Your task to perform on an android device: Go to settings Image 0: 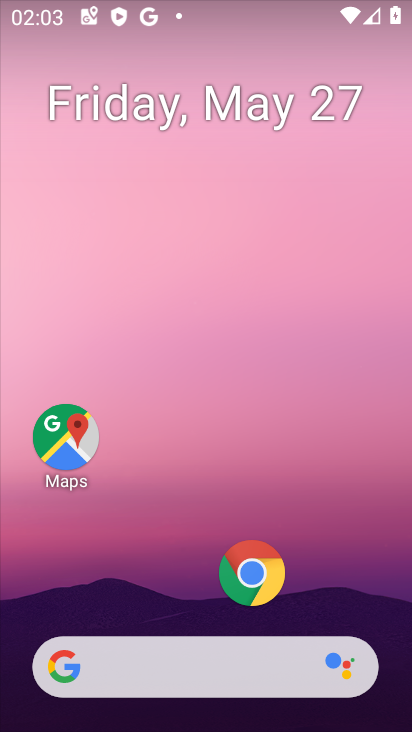
Step 0: drag from (269, 612) to (401, 320)
Your task to perform on an android device: Go to settings Image 1: 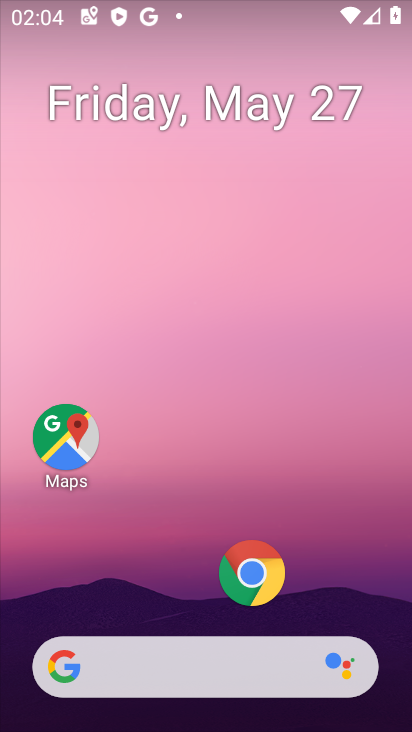
Step 1: click (154, 173)
Your task to perform on an android device: Go to settings Image 2: 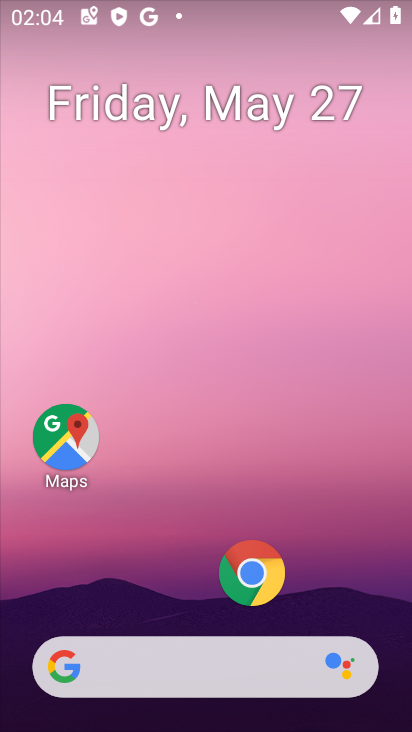
Step 2: drag from (207, 632) to (358, 186)
Your task to perform on an android device: Go to settings Image 3: 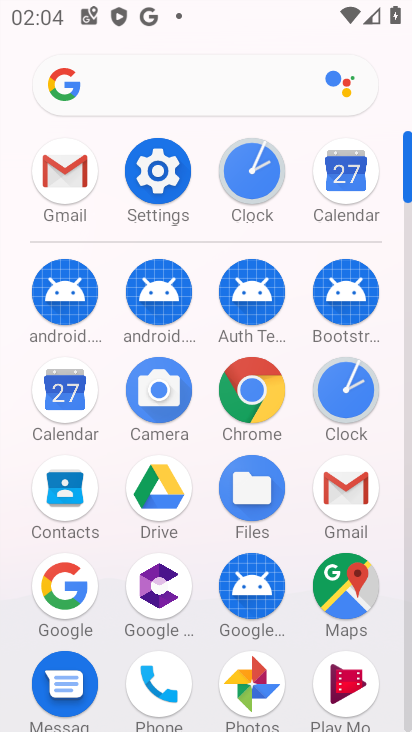
Step 3: click (178, 170)
Your task to perform on an android device: Go to settings Image 4: 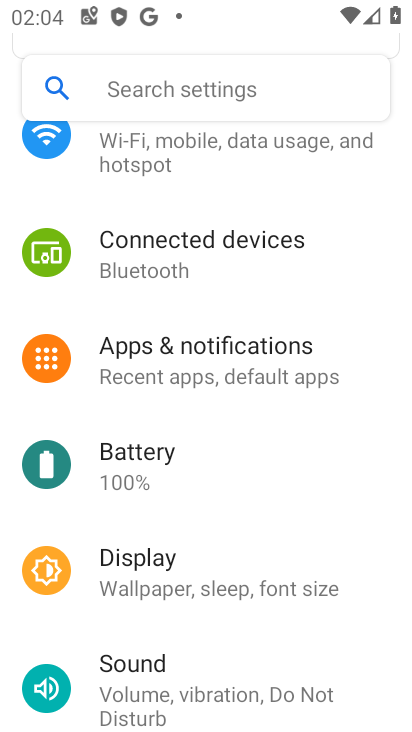
Step 4: task complete